Your task to perform on an android device: delete a single message in the gmail app Image 0: 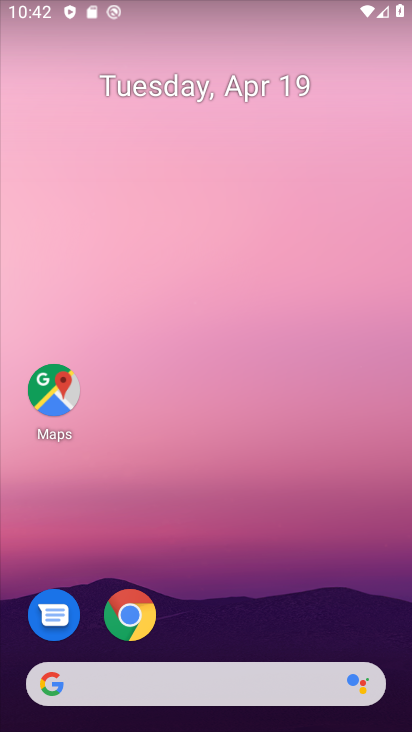
Step 0: drag from (70, 13) to (182, 614)
Your task to perform on an android device: delete a single message in the gmail app Image 1: 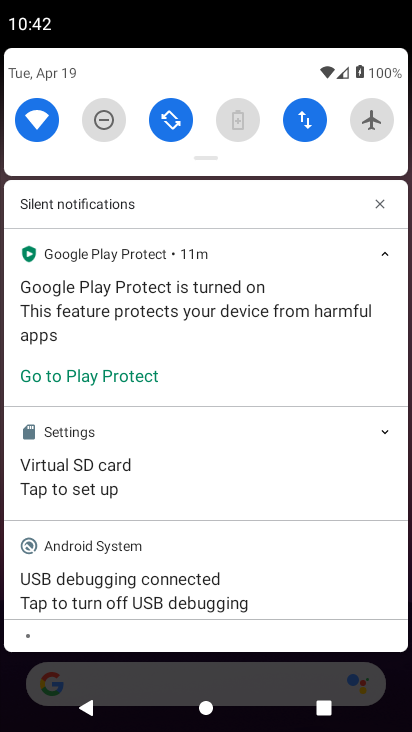
Step 1: drag from (191, 160) to (174, 713)
Your task to perform on an android device: delete a single message in the gmail app Image 2: 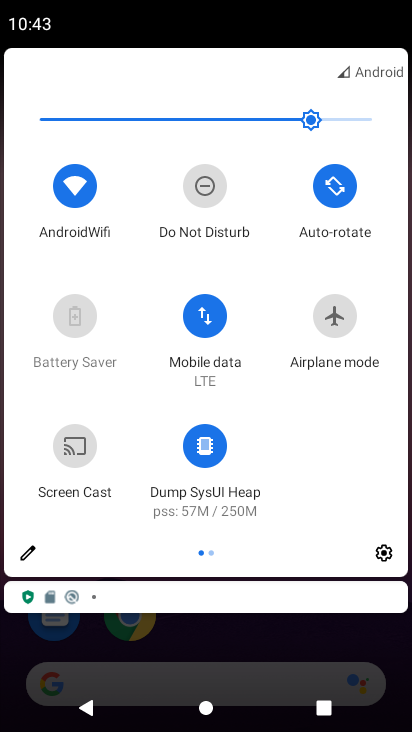
Step 2: click (202, 707)
Your task to perform on an android device: delete a single message in the gmail app Image 3: 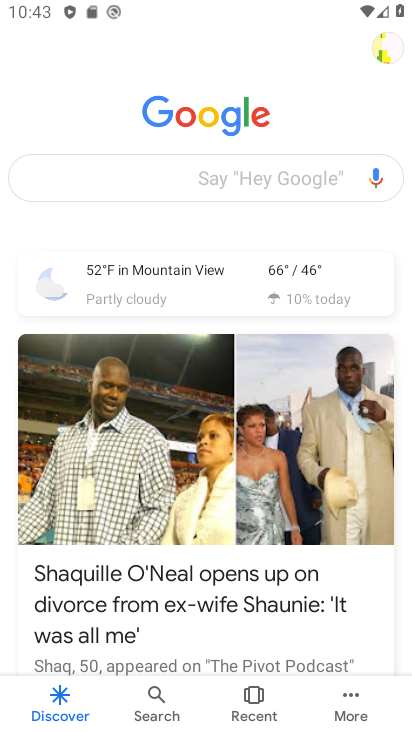
Step 3: press home button
Your task to perform on an android device: delete a single message in the gmail app Image 4: 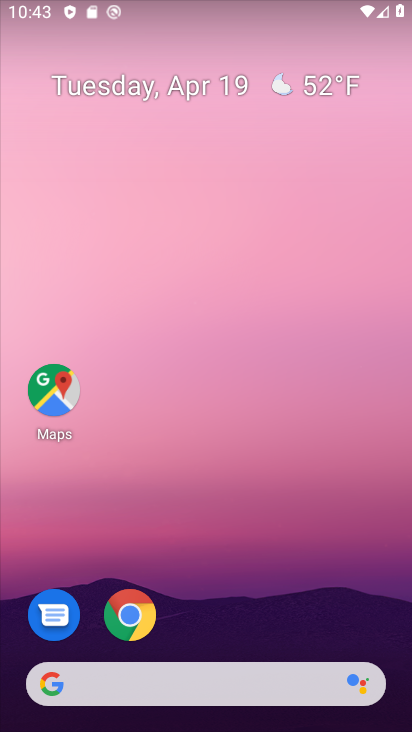
Step 4: drag from (218, 659) to (321, 70)
Your task to perform on an android device: delete a single message in the gmail app Image 5: 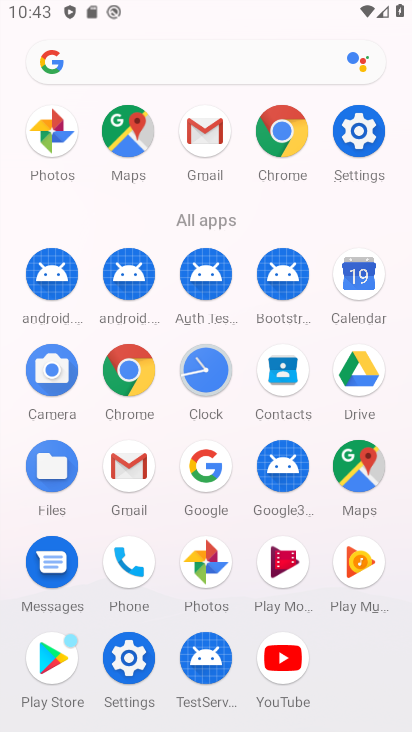
Step 5: click (207, 123)
Your task to perform on an android device: delete a single message in the gmail app Image 6: 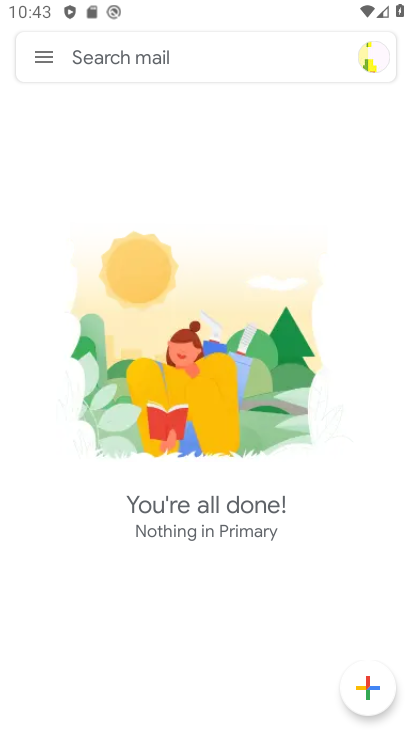
Step 6: task complete